Your task to perform on an android device: Show me popular videos on Youtube Image 0: 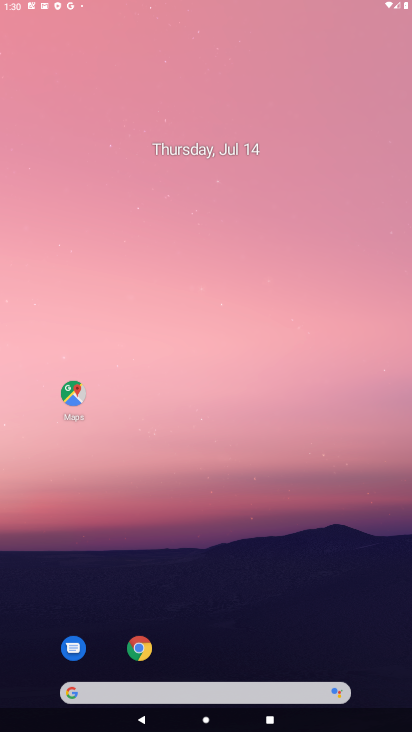
Step 0: drag from (367, 455) to (256, 1)
Your task to perform on an android device: Show me popular videos on Youtube Image 1: 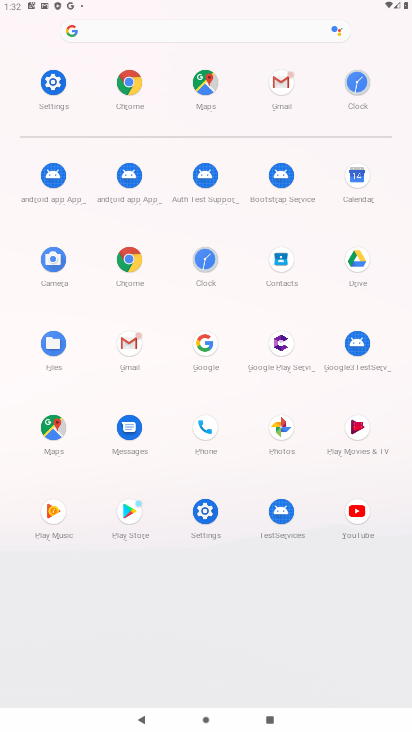
Step 1: click (364, 502)
Your task to perform on an android device: Show me popular videos on Youtube Image 2: 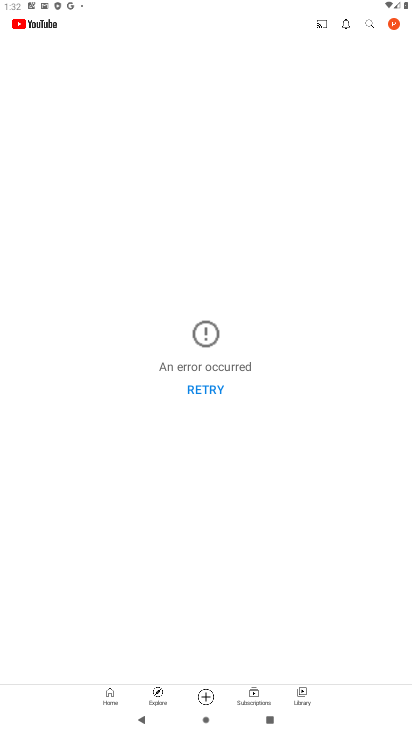
Step 2: task complete